Your task to perform on an android device: delete a single message in the gmail app Image 0: 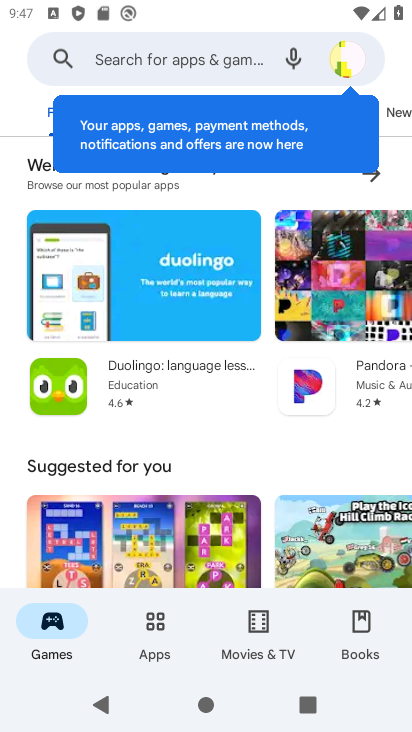
Step 0: press home button
Your task to perform on an android device: delete a single message in the gmail app Image 1: 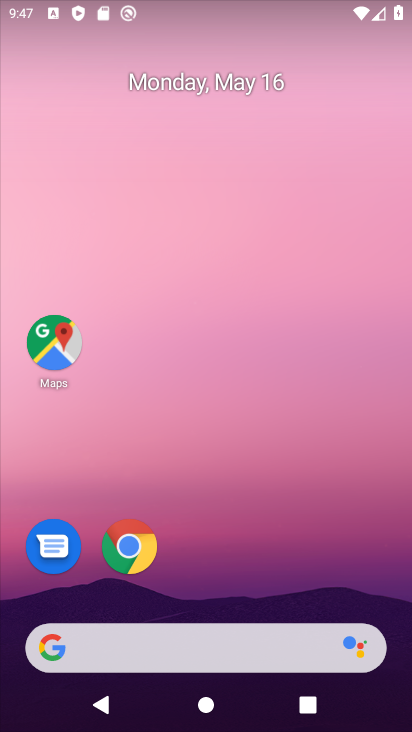
Step 1: drag from (246, 613) to (219, 151)
Your task to perform on an android device: delete a single message in the gmail app Image 2: 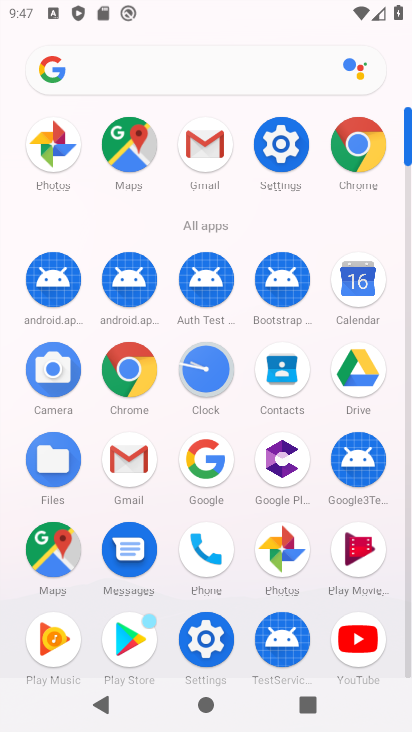
Step 2: click (191, 142)
Your task to perform on an android device: delete a single message in the gmail app Image 3: 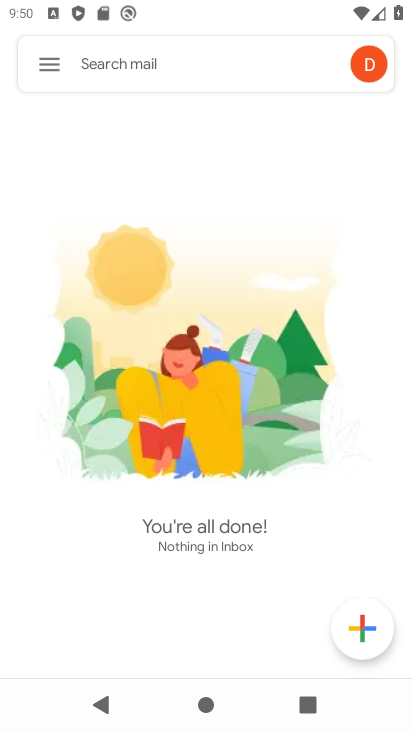
Step 3: task complete